Your task to perform on an android device: open sync settings in chrome Image 0: 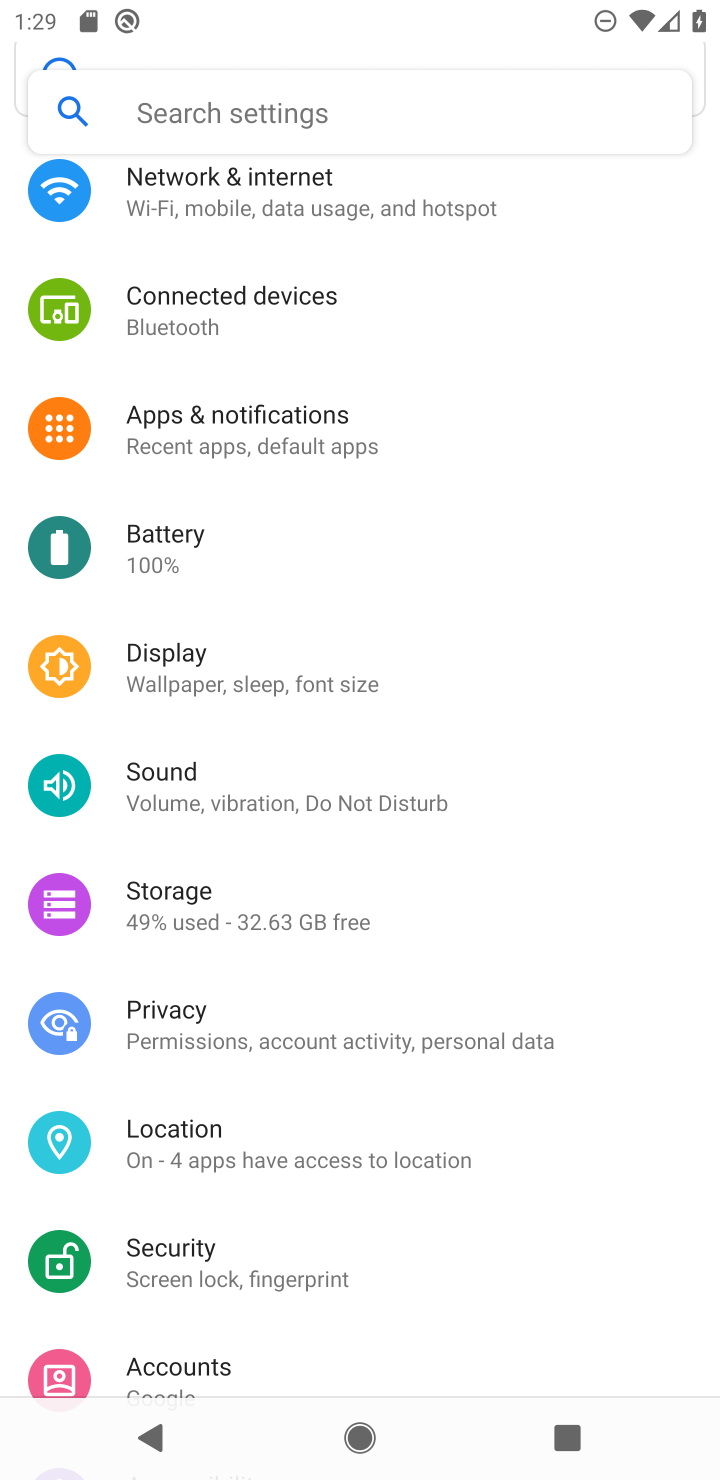
Step 0: press home button
Your task to perform on an android device: open sync settings in chrome Image 1: 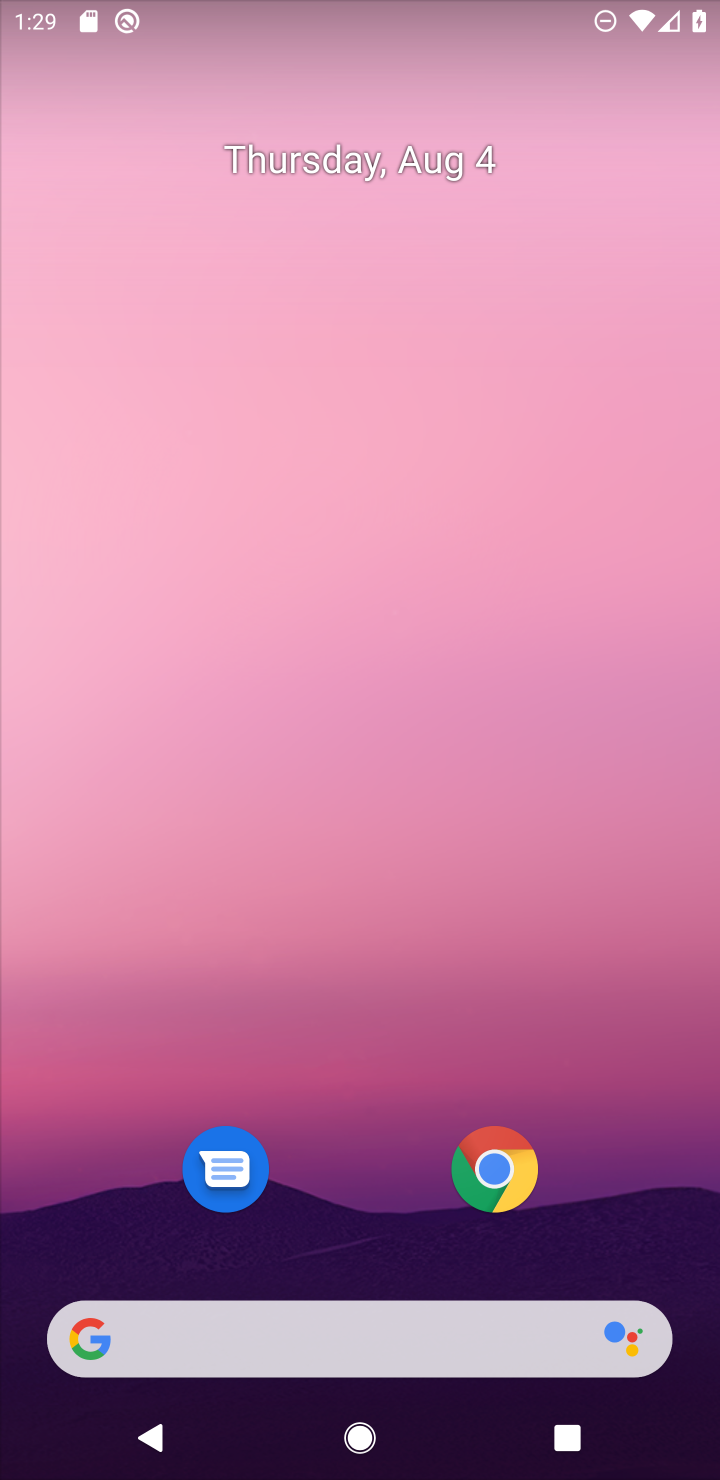
Step 1: click (497, 1184)
Your task to perform on an android device: open sync settings in chrome Image 2: 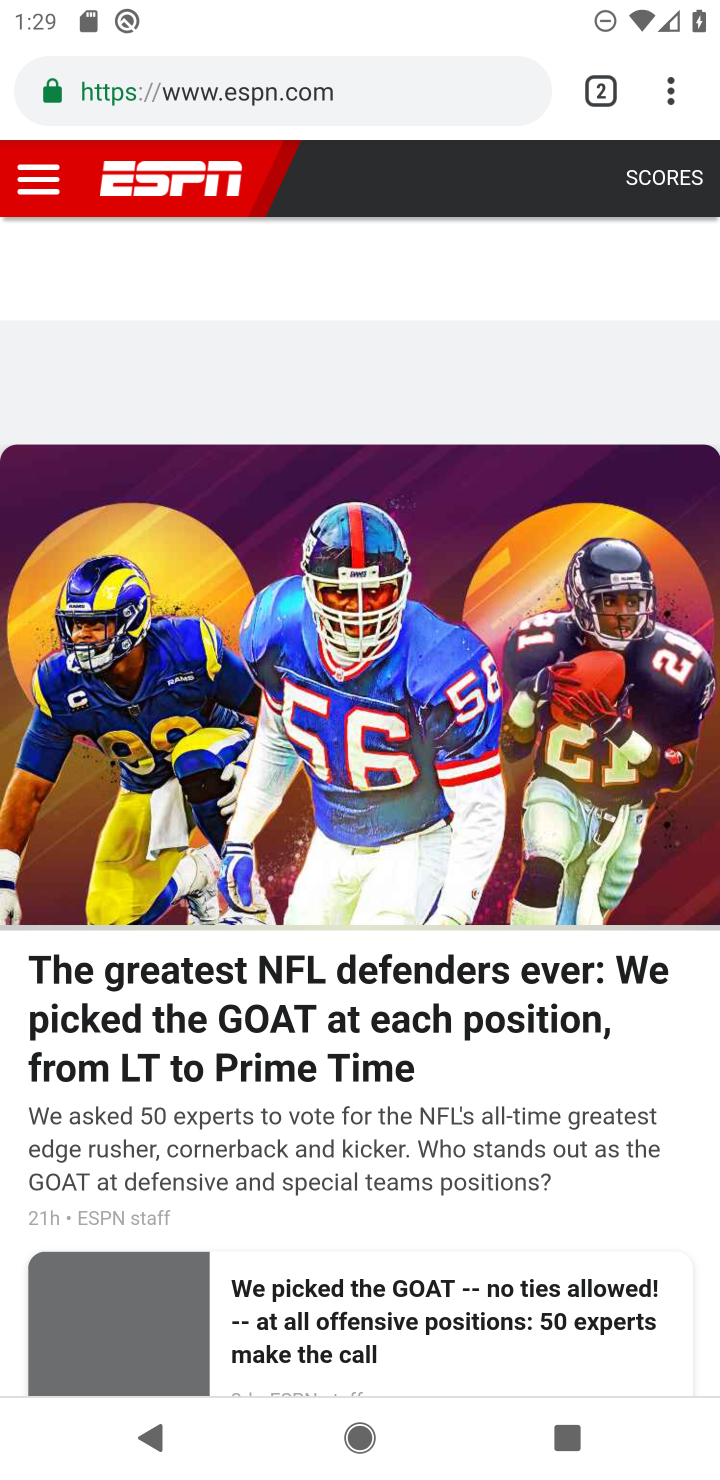
Step 2: drag from (672, 90) to (386, 1101)
Your task to perform on an android device: open sync settings in chrome Image 3: 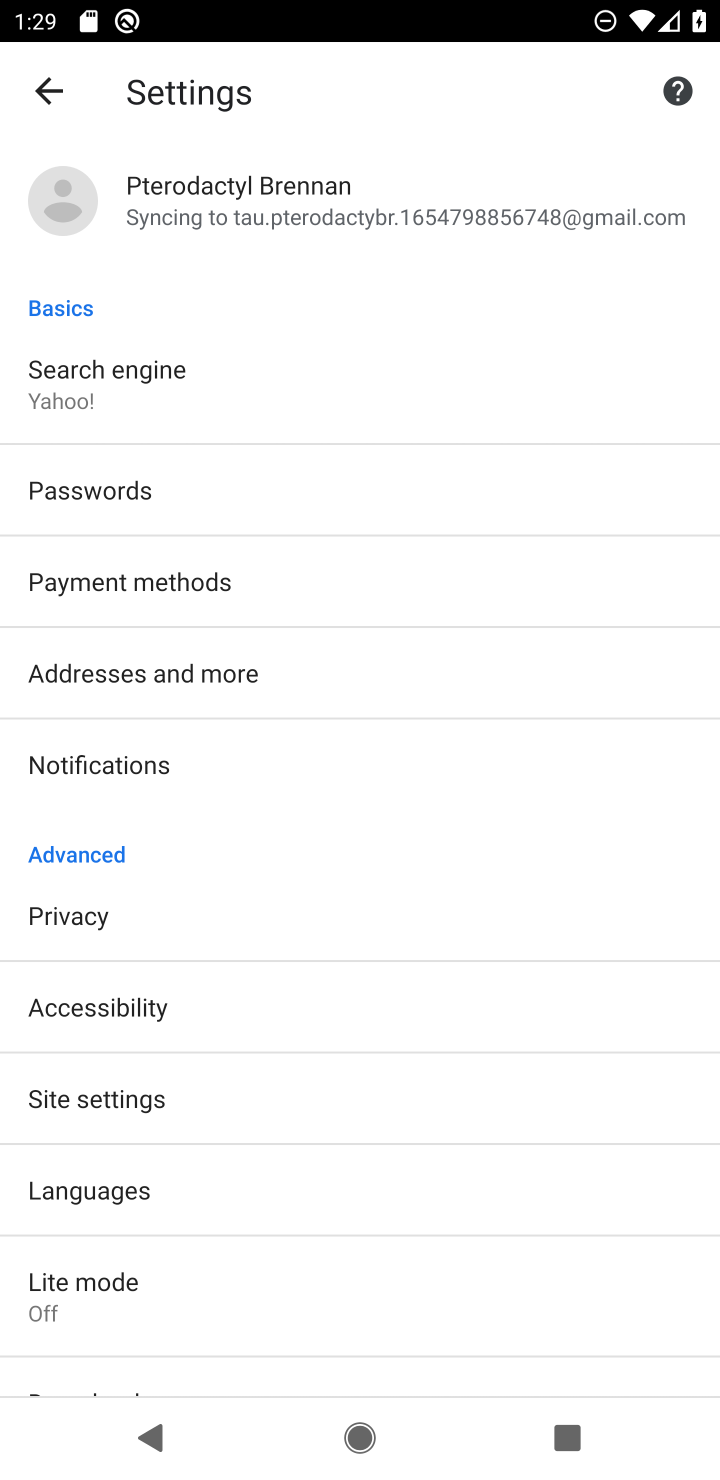
Step 3: click (323, 215)
Your task to perform on an android device: open sync settings in chrome Image 4: 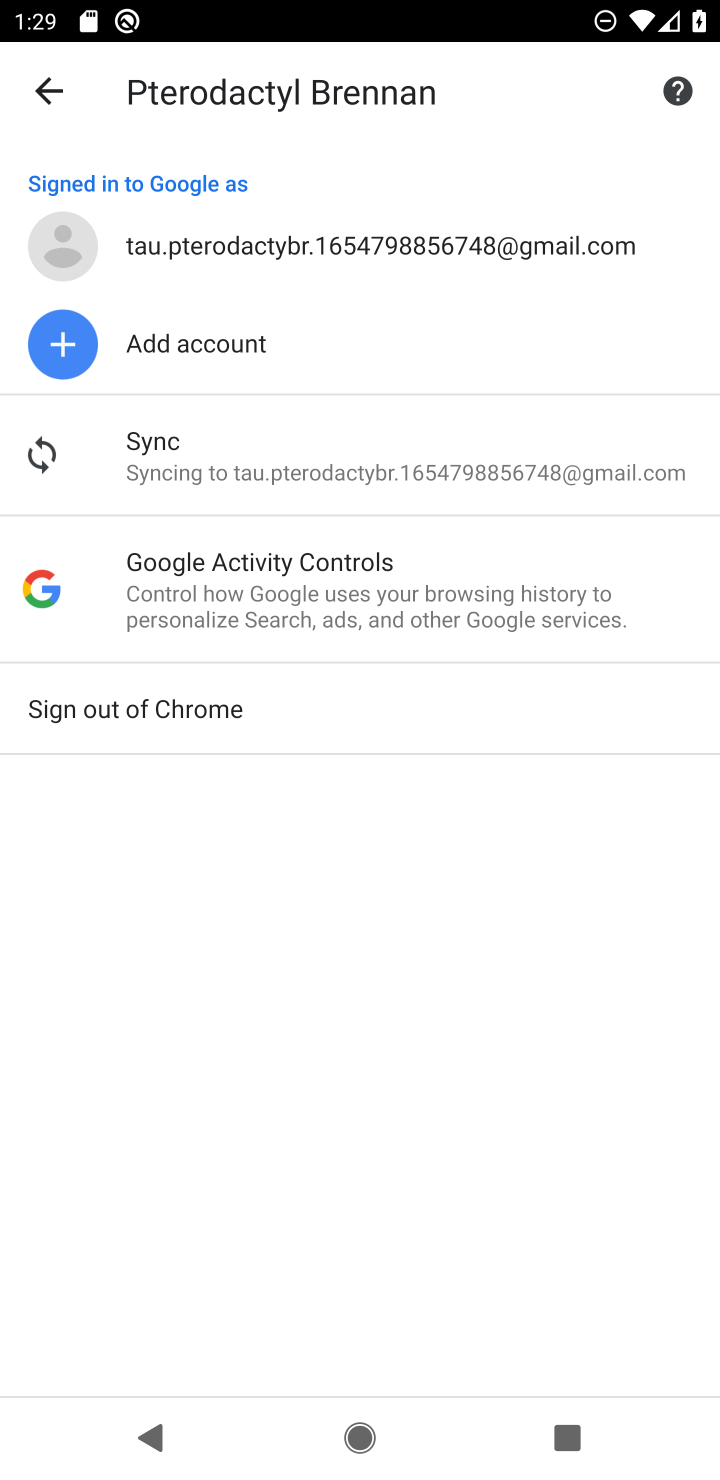
Step 4: click (148, 474)
Your task to perform on an android device: open sync settings in chrome Image 5: 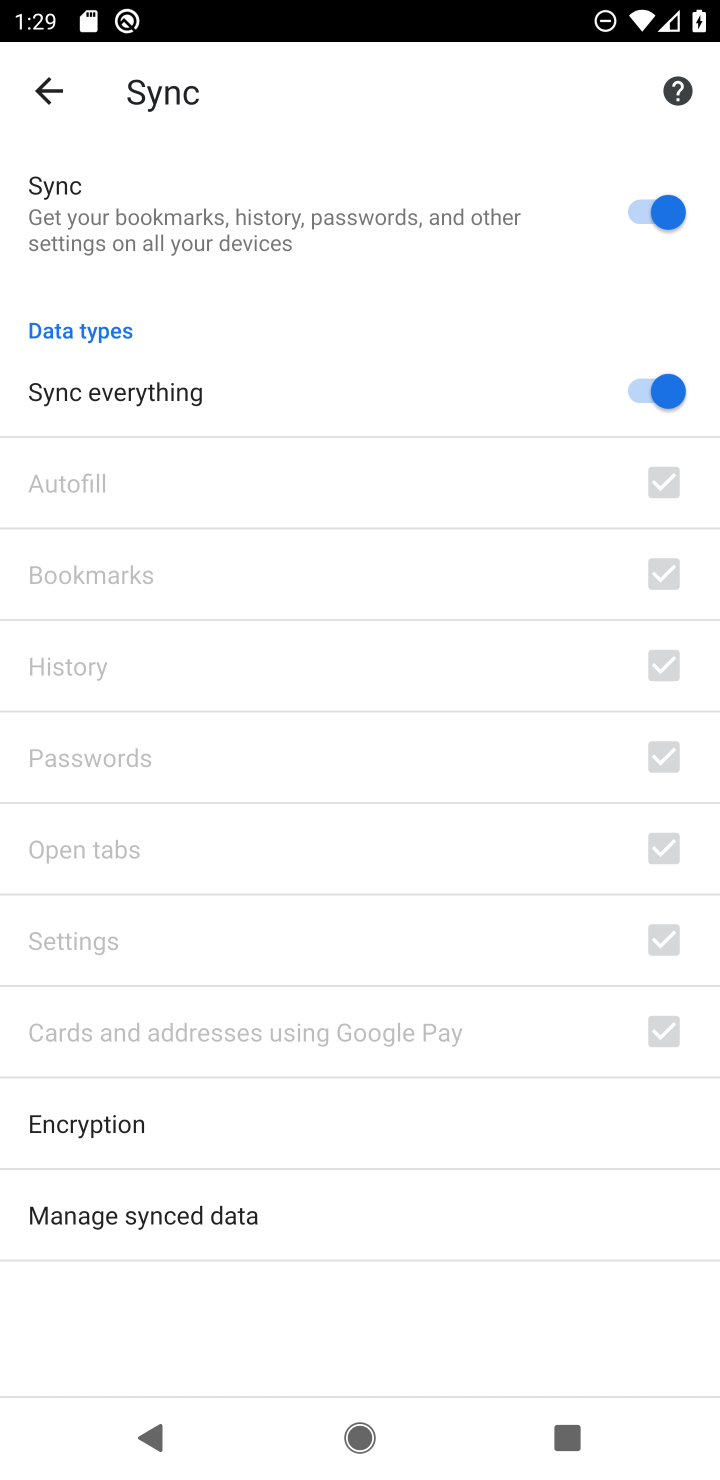
Step 5: task complete